Your task to perform on an android device: Open Maps and search for coffee Image 0: 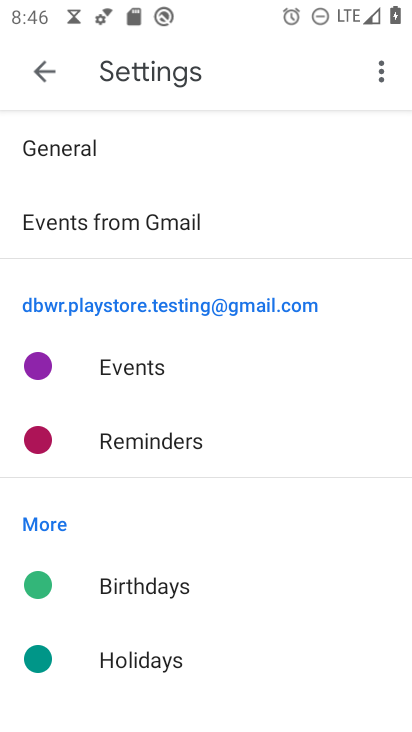
Step 0: press home button
Your task to perform on an android device: Open Maps and search for coffee Image 1: 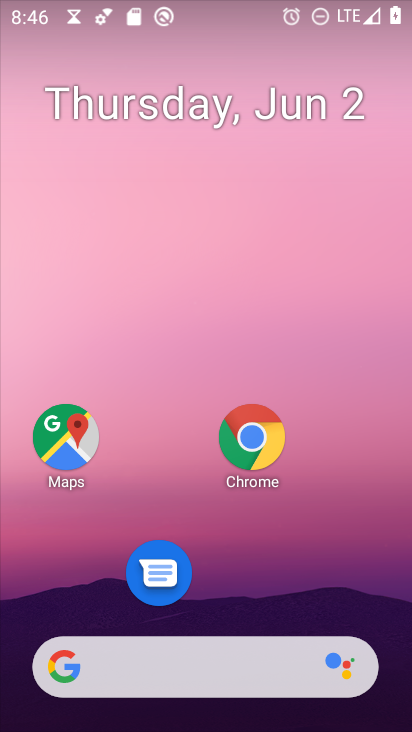
Step 1: click (74, 440)
Your task to perform on an android device: Open Maps and search for coffee Image 2: 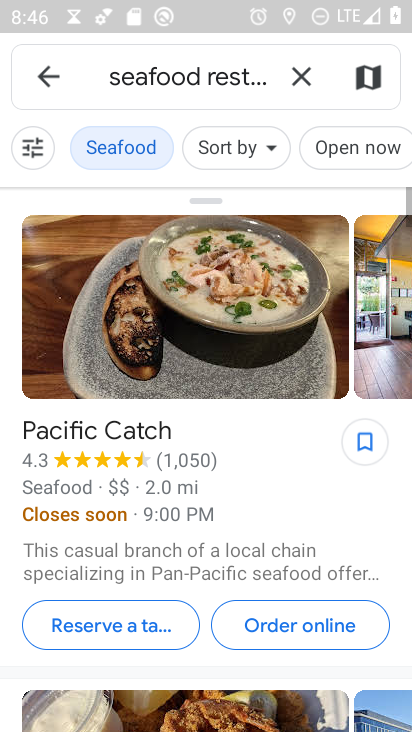
Step 2: click (304, 78)
Your task to perform on an android device: Open Maps and search for coffee Image 3: 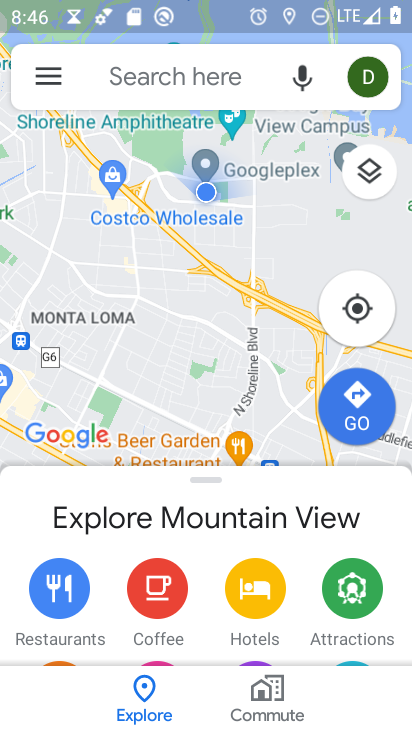
Step 3: click (159, 75)
Your task to perform on an android device: Open Maps and search for coffee Image 4: 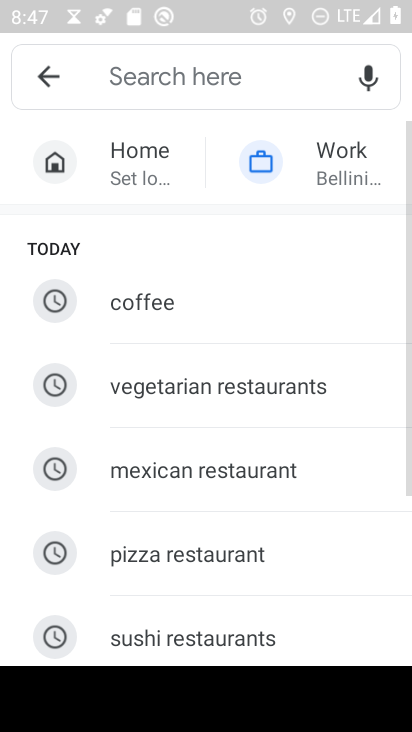
Step 4: click (157, 306)
Your task to perform on an android device: Open Maps and search for coffee Image 5: 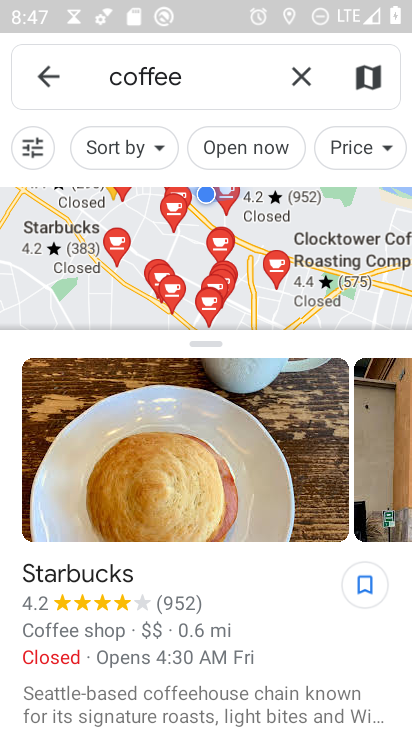
Step 5: task complete